Your task to perform on an android device: What is the news today? Image 0: 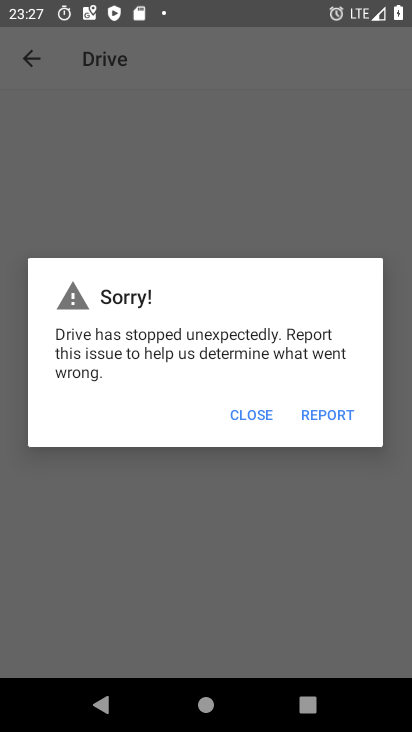
Step 0: click (260, 418)
Your task to perform on an android device: What is the news today? Image 1: 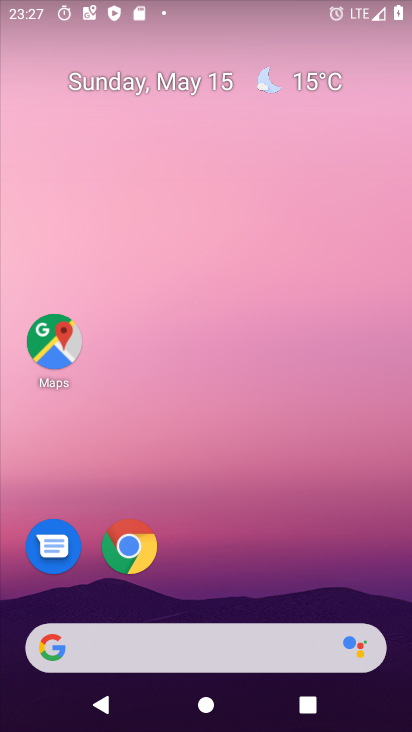
Step 1: drag from (234, 687) to (161, 196)
Your task to perform on an android device: What is the news today? Image 2: 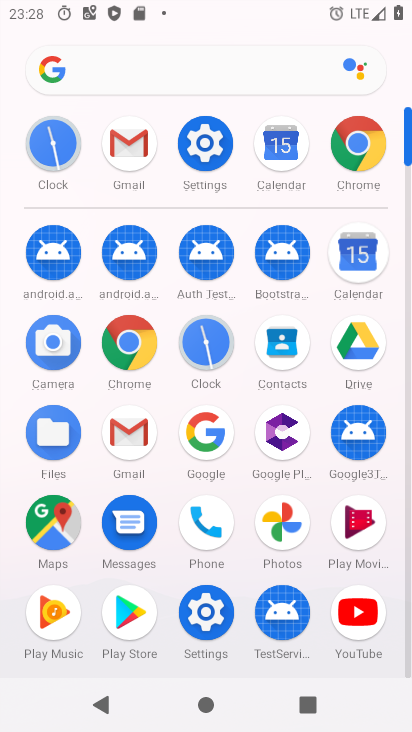
Step 2: press back button
Your task to perform on an android device: What is the news today? Image 3: 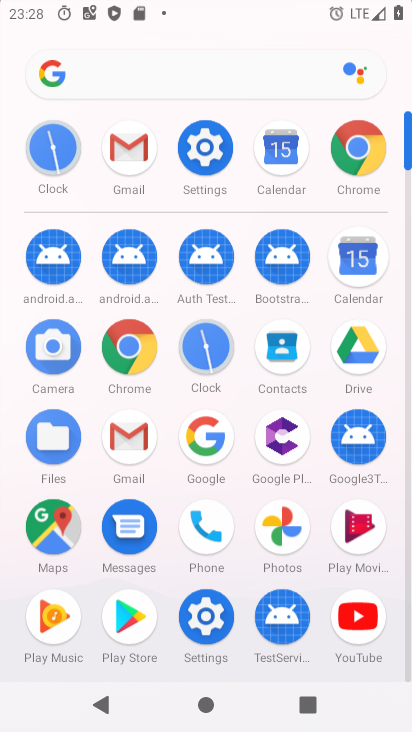
Step 3: press back button
Your task to perform on an android device: What is the news today? Image 4: 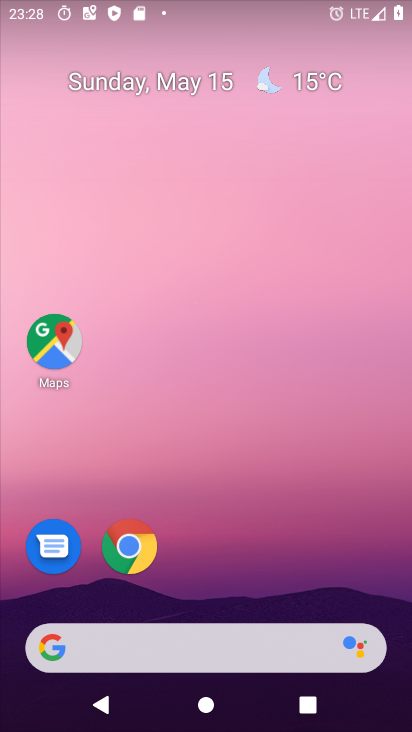
Step 4: drag from (6, 125) to (405, 617)
Your task to perform on an android device: What is the news today? Image 5: 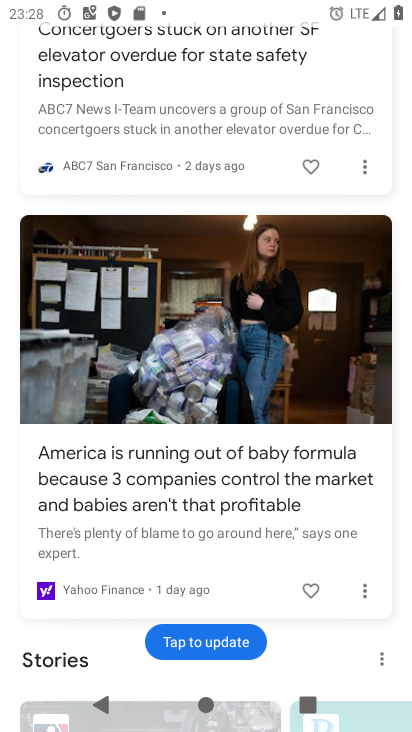
Step 5: drag from (143, 167) to (264, 453)
Your task to perform on an android device: What is the news today? Image 6: 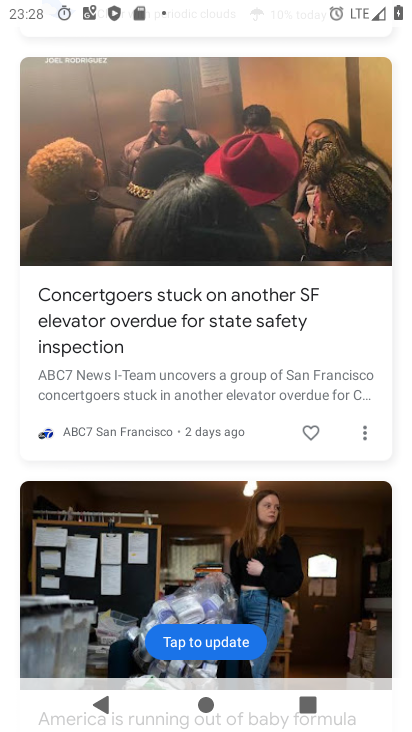
Step 6: drag from (250, 536) to (219, 626)
Your task to perform on an android device: What is the news today? Image 7: 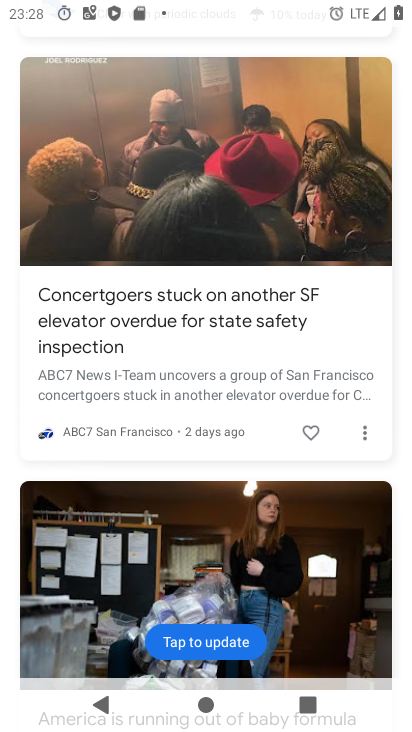
Step 7: drag from (197, 273) to (257, 494)
Your task to perform on an android device: What is the news today? Image 8: 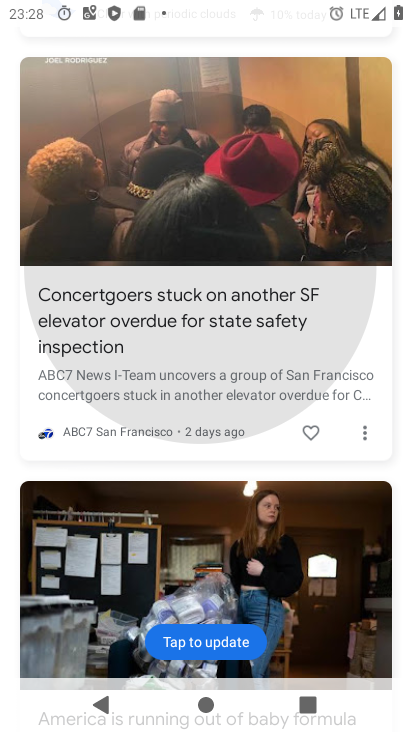
Step 8: drag from (186, 227) to (197, 525)
Your task to perform on an android device: What is the news today? Image 9: 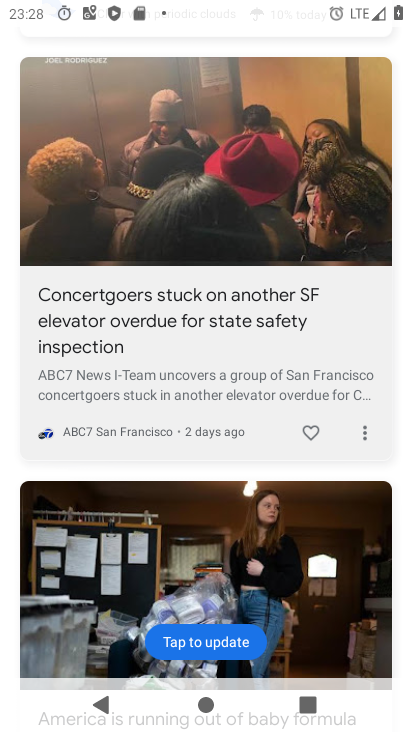
Step 9: drag from (202, 450) to (224, 578)
Your task to perform on an android device: What is the news today? Image 10: 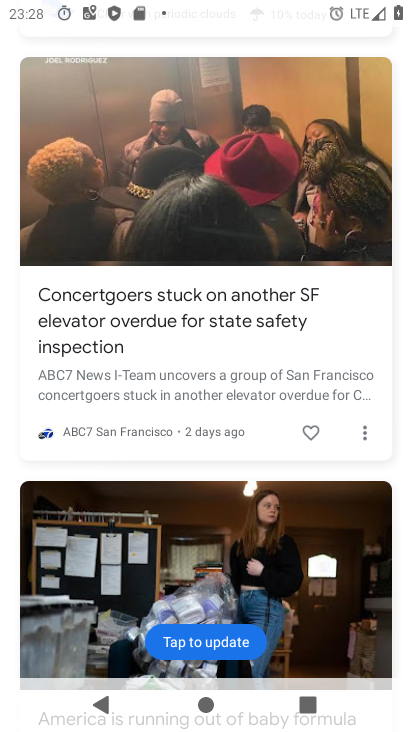
Step 10: drag from (203, 335) to (241, 468)
Your task to perform on an android device: What is the news today? Image 11: 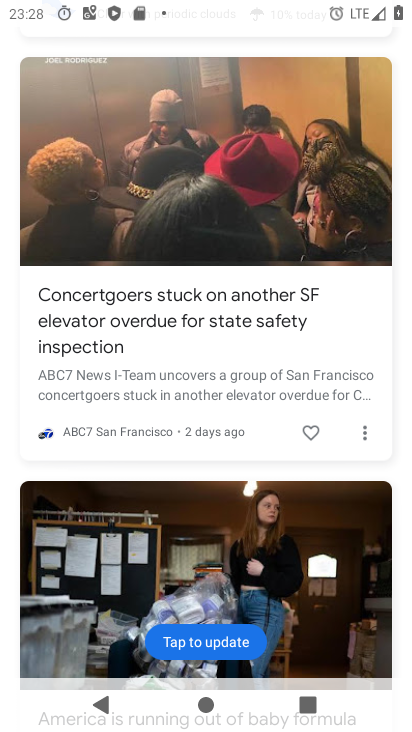
Step 11: drag from (124, 344) to (142, 526)
Your task to perform on an android device: What is the news today? Image 12: 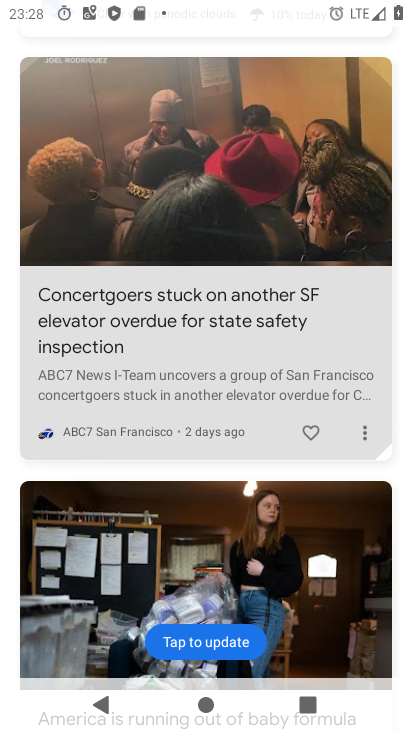
Step 12: drag from (96, 152) to (220, 587)
Your task to perform on an android device: What is the news today? Image 13: 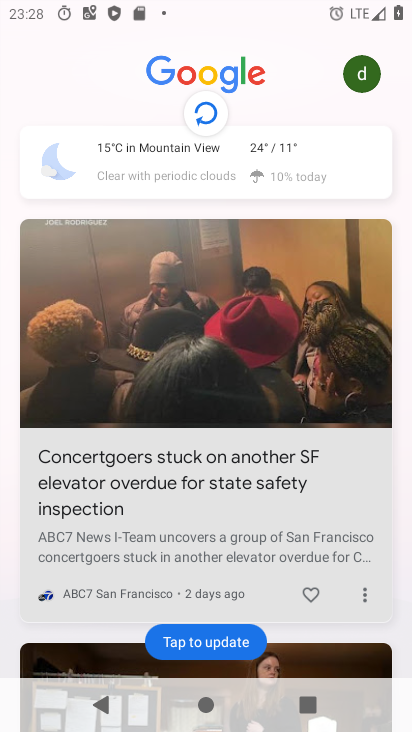
Step 13: drag from (172, 215) to (247, 611)
Your task to perform on an android device: What is the news today? Image 14: 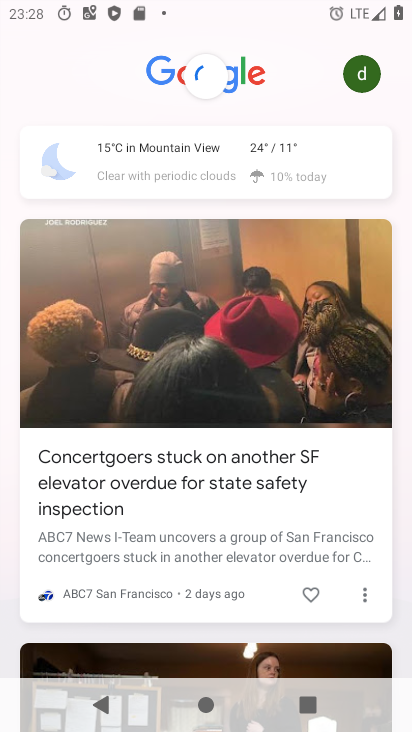
Step 14: drag from (150, 194) to (233, 547)
Your task to perform on an android device: What is the news today? Image 15: 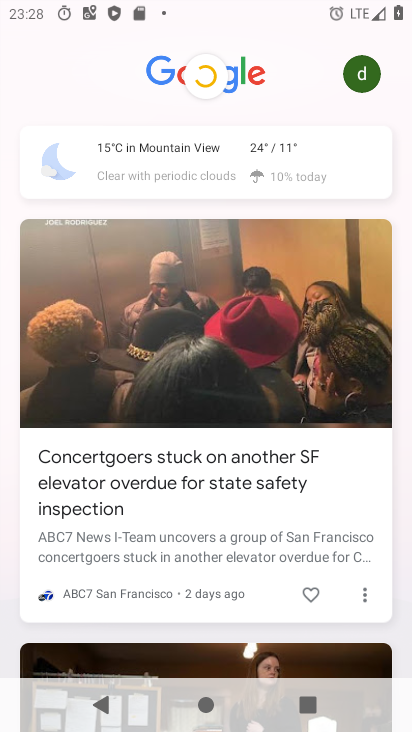
Step 15: click (169, 151)
Your task to perform on an android device: What is the news today? Image 16: 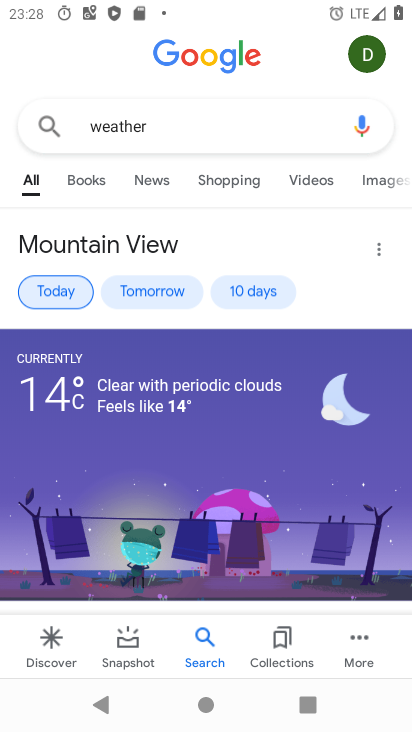
Step 16: task complete